Your task to perform on an android device: Open calendar and show me the third week of next month Image 0: 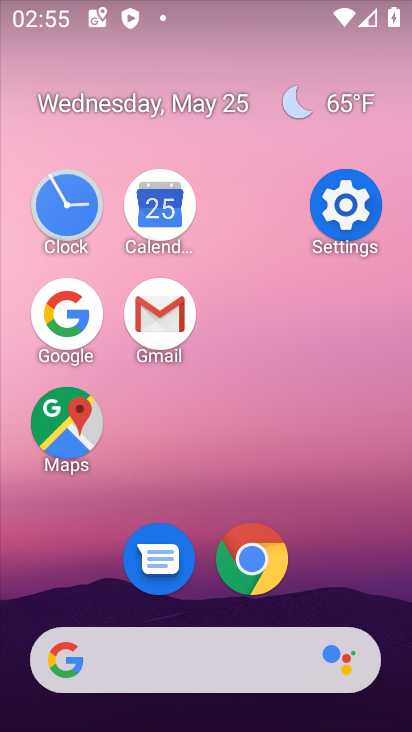
Step 0: click (157, 203)
Your task to perform on an android device: Open calendar and show me the third week of next month Image 1: 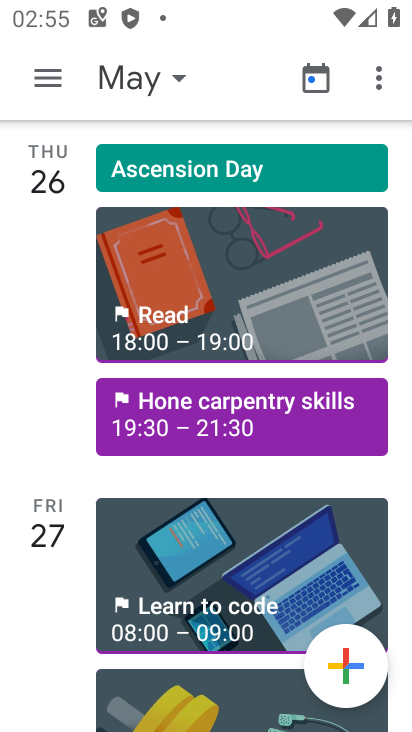
Step 1: click (155, 69)
Your task to perform on an android device: Open calendar and show me the third week of next month Image 2: 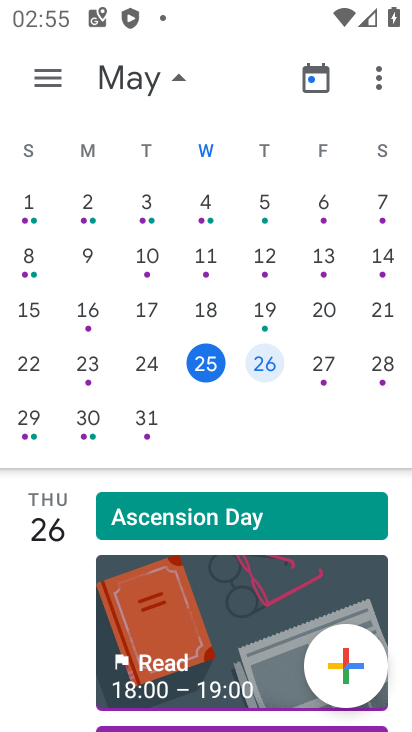
Step 2: drag from (372, 287) to (3, 115)
Your task to perform on an android device: Open calendar and show me the third week of next month Image 3: 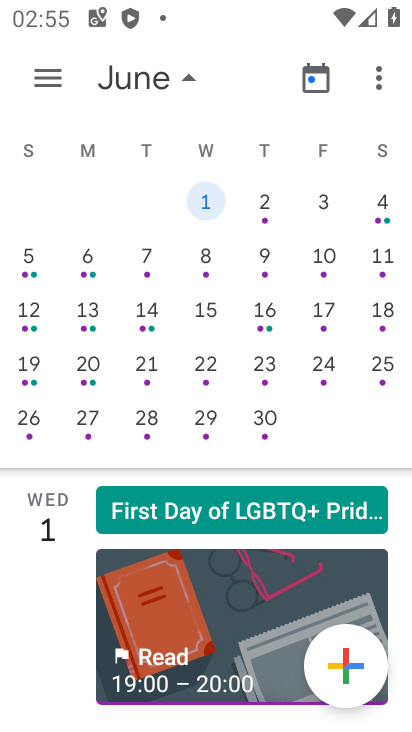
Step 3: click (38, 85)
Your task to perform on an android device: Open calendar and show me the third week of next month Image 4: 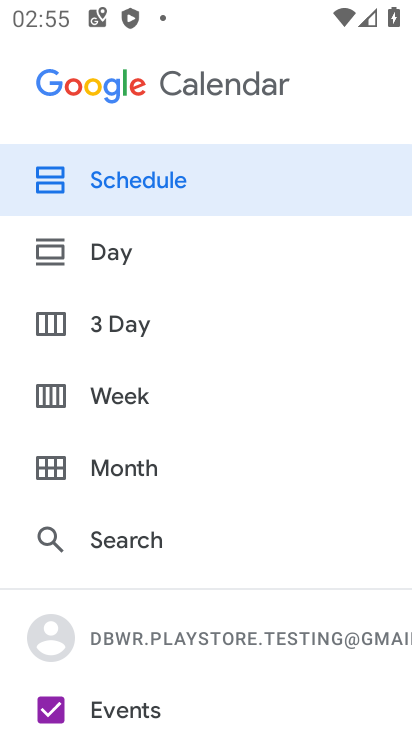
Step 4: click (118, 393)
Your task to perform on an android device: Open calendar and show me the third week of next month Image 5: 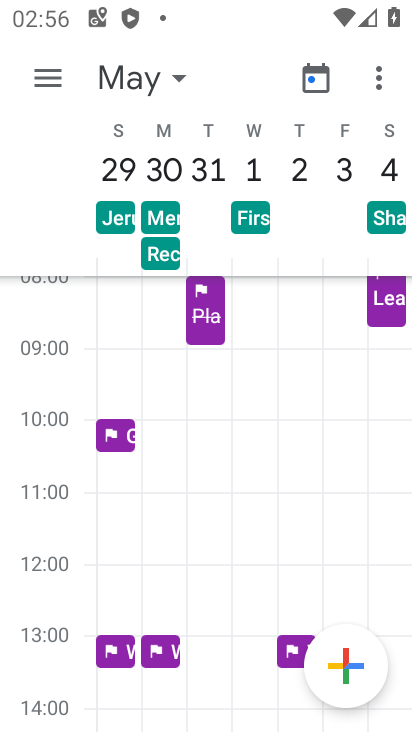
Step 5: task complete